Your task to perform on an android device: set the stopwatch Image 0: 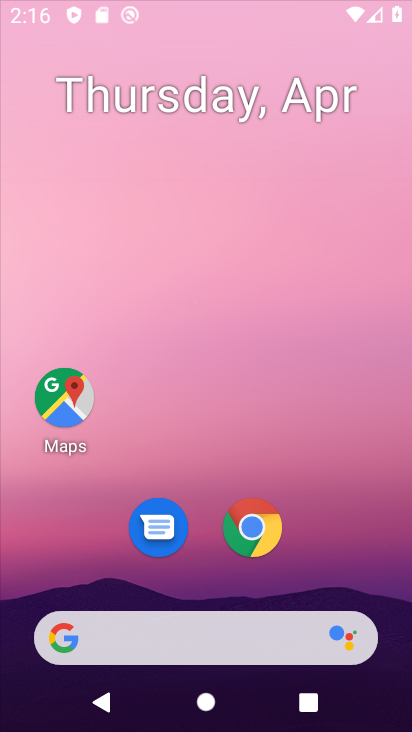
Step 0: drag from (338, 528) to (283, 188)
Your task to perform on an android device: set the stopwatch Image 1: 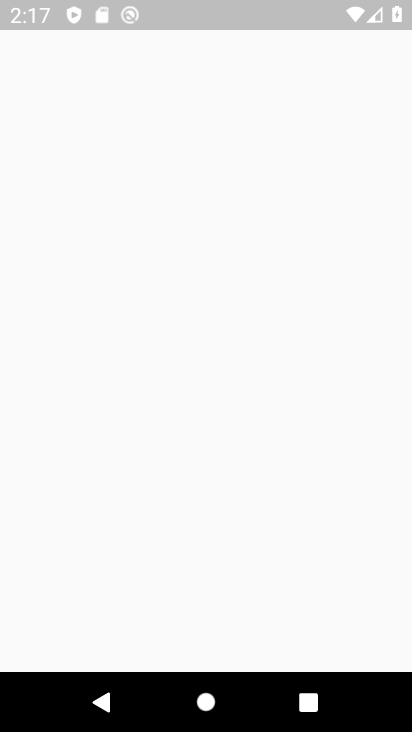
Step 1: press home button
Your task to perform on an android device: set the stopwatch Image 2: 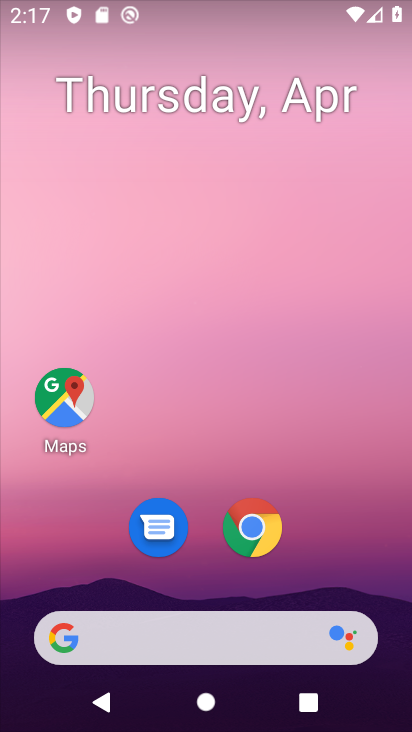
Step 2: drag from (342, 517) to (254, 109)
Your task to perform on an android device: set the stopwatch Image 3: 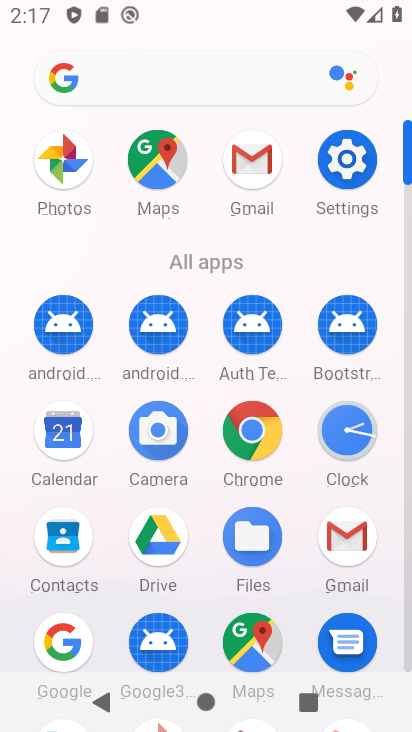
Step 3: click (348, 441)
Your task to perform on an android device: set the stopwatch Image 4: 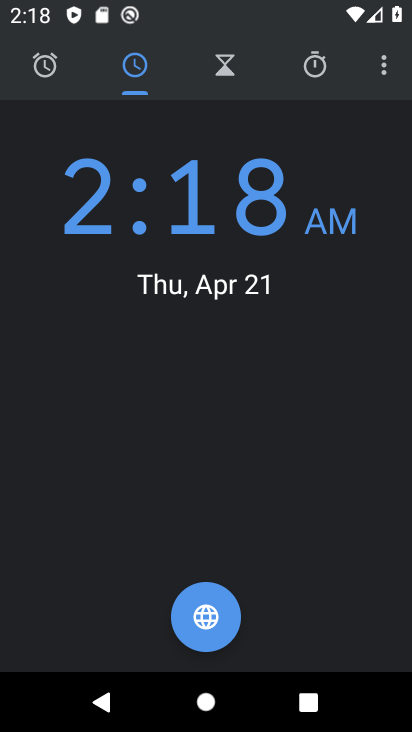
Step 4: click (335, 71)
Your task to perform on an android device: set the stopwatch Image 5: 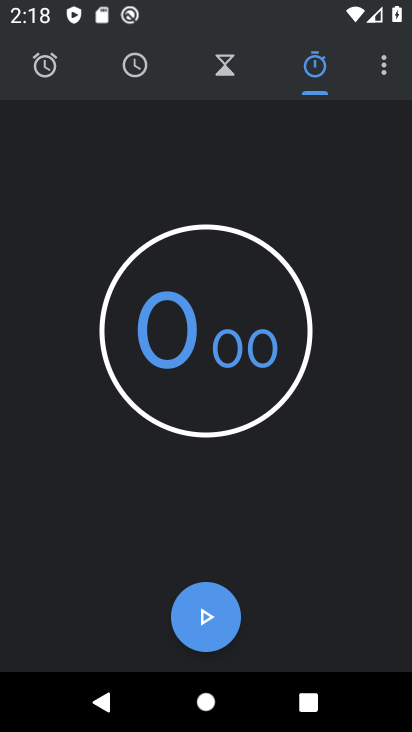
Step 5: click (210, 600)
Your task to perform on an android device: set the stopwatch Image 6: 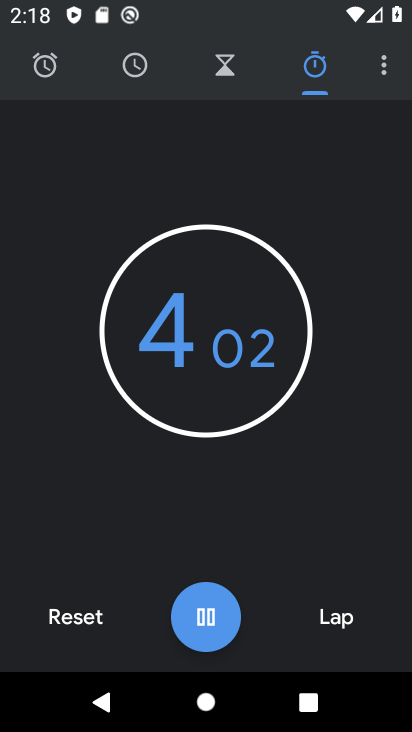
Step 6: click (204, 604)
Your task to perform on an android device: set the stopwatch Image 7: 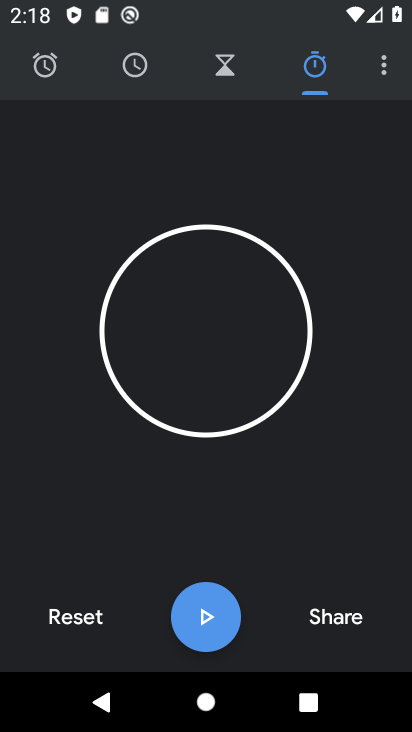
Step 7: task complete